Your task to perform on an android device: delete location history Image 0: 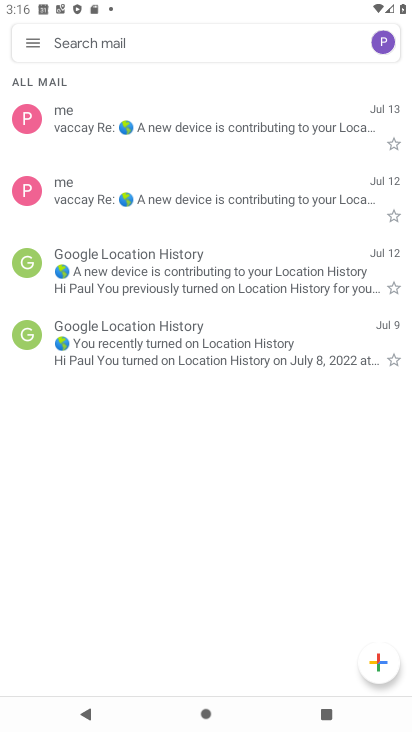
Step 0: press home button
Your task to perform on an android device: delete location history Image 1: 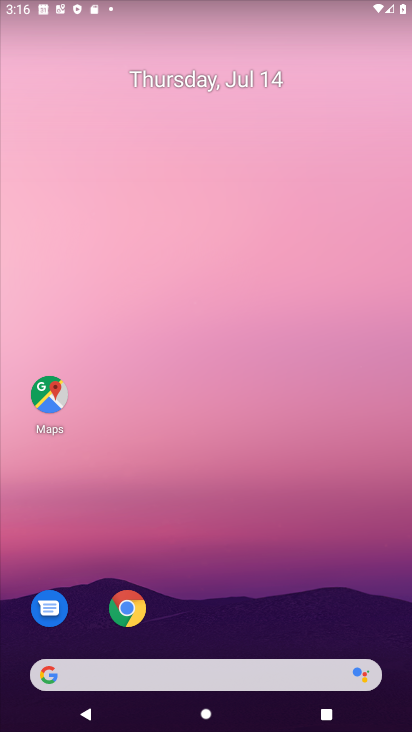
Step 1: click (54, 395)
Your task to perform on an android device: delete location history Image 2: 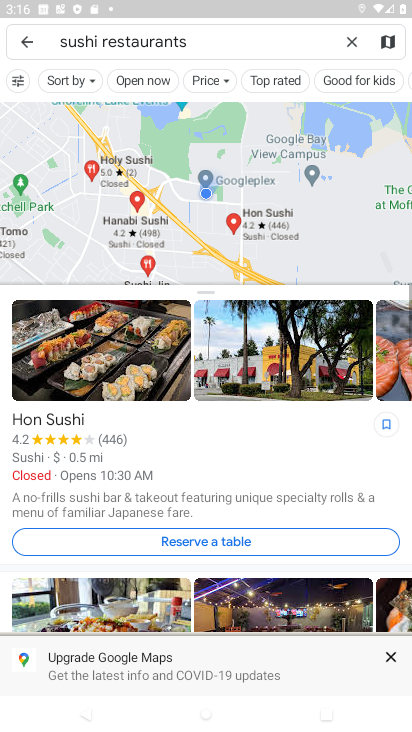
Step 2: click (17, 42)
Your task to perform on an android device: delete location history Image 3: 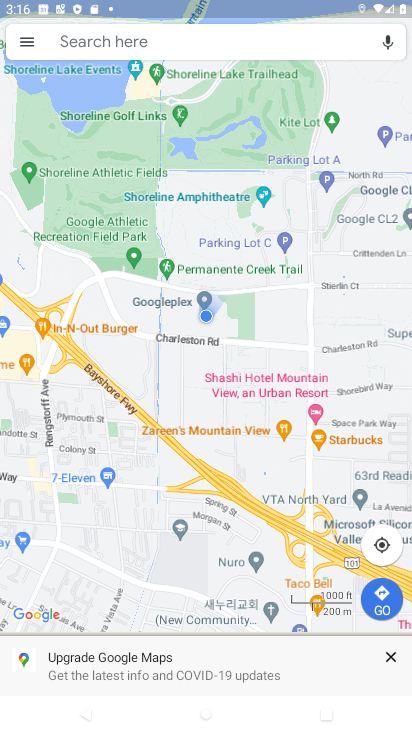
Step 3: click (17, 42)
Your task to perform on an android device: delete location history Image 4: 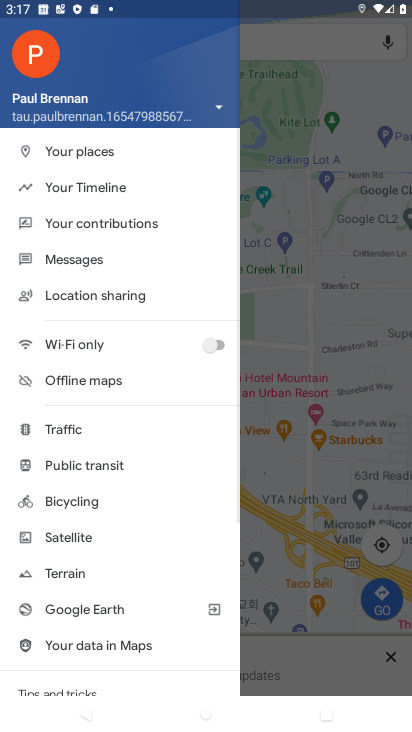
Step 4: click (109, 185)
Your task to perform on an android device: delete location history Image 5: 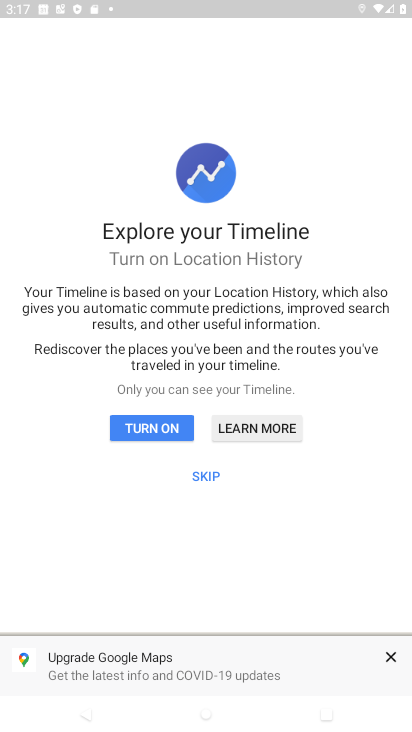
Step 5: click (209, 472)
Your task to perform on an android device: delete location history Image 6: 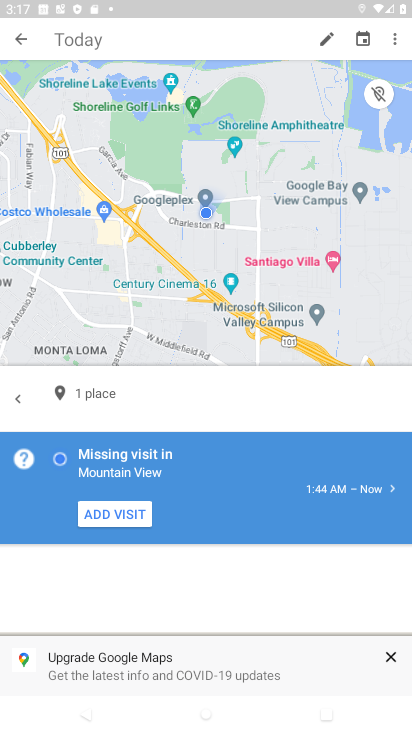
Step 6: click (391, 37)
Your task to perform on an android device: delete location history Image 7: 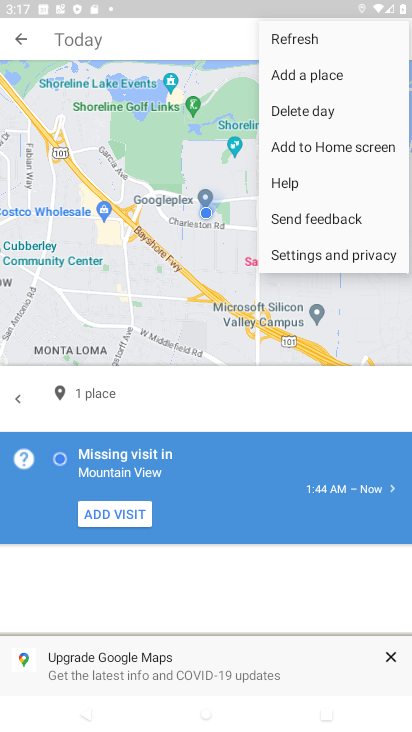
Step 7: click (310, 246)
Your task to perform on an android device: delete location history Image 8: 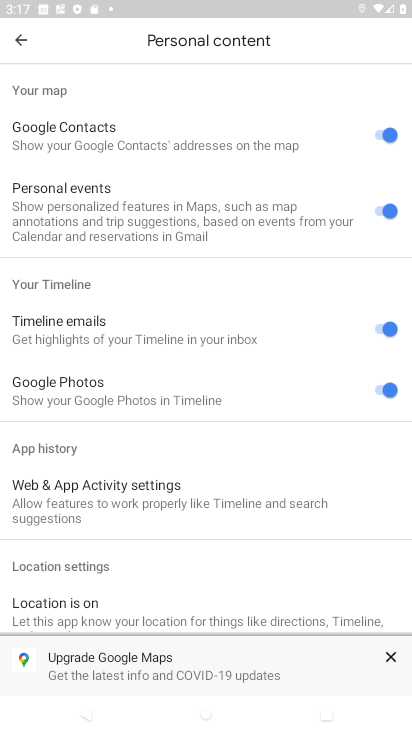
Step 8: drag from (88, 545) to (93, 181)
Your task to perform on an android device: delete location history Image 9: 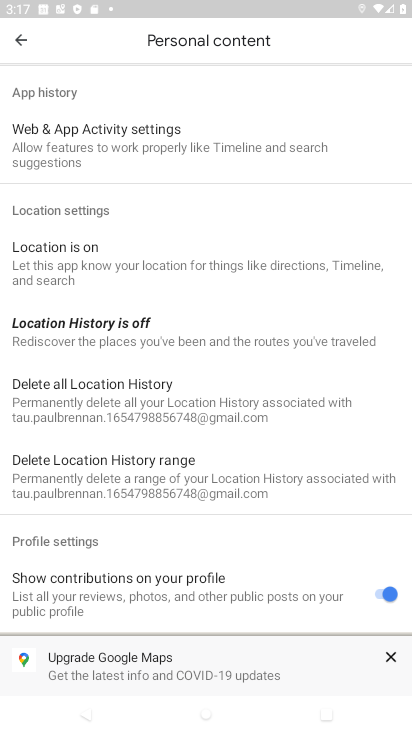
Step 9: click (120, 397)
Your task to perform on an android device: delete location history Image 10: 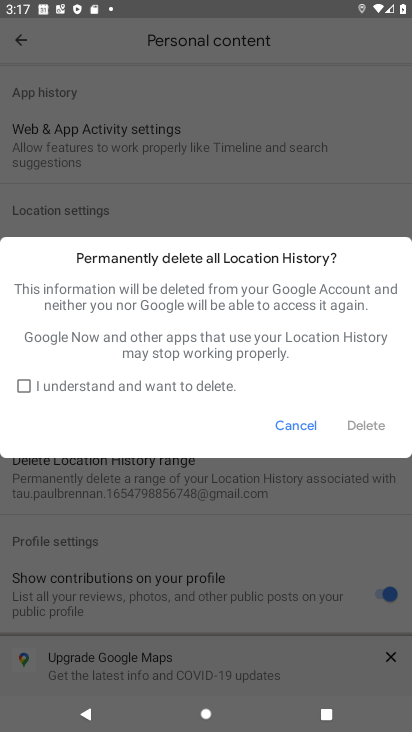
Step 10: click (86, 387)
Your task to perform on an android device: delete location history Image 11: 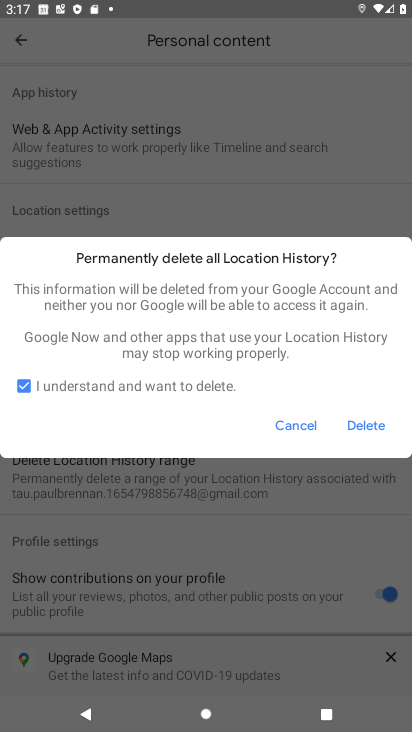
Step 11: click (358, 430)
Your task to perform on an android device: delete location history Image 12: 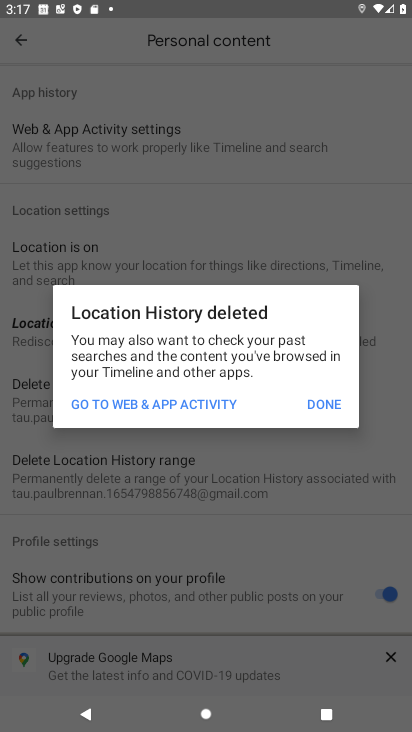
Step 12: click (314, 413)
Your task to perform on an android device: delete location history Image 13: 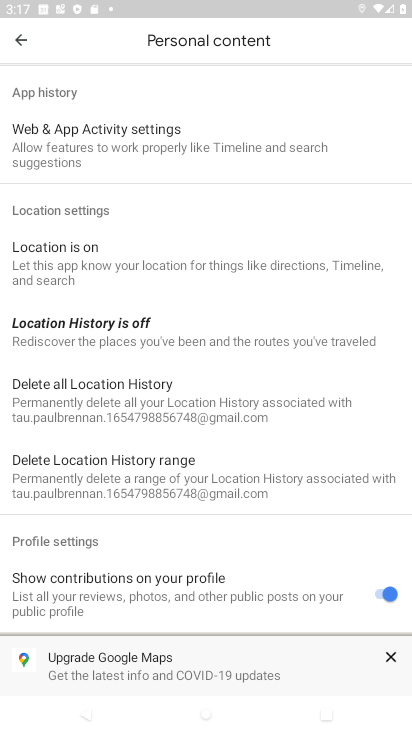
Step 13: task complete